Your task to perform on an android device: open device folders in google photos Image 0: 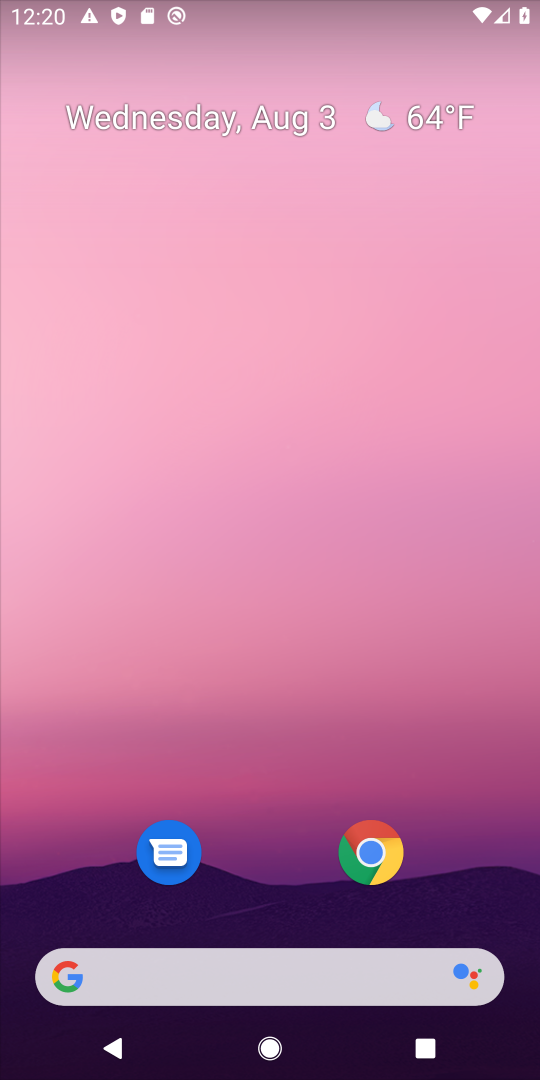
Step 0: drag from (253, 861) to (255, 18)
Your task to perform on an android device: open device folders in google photos Image 1: 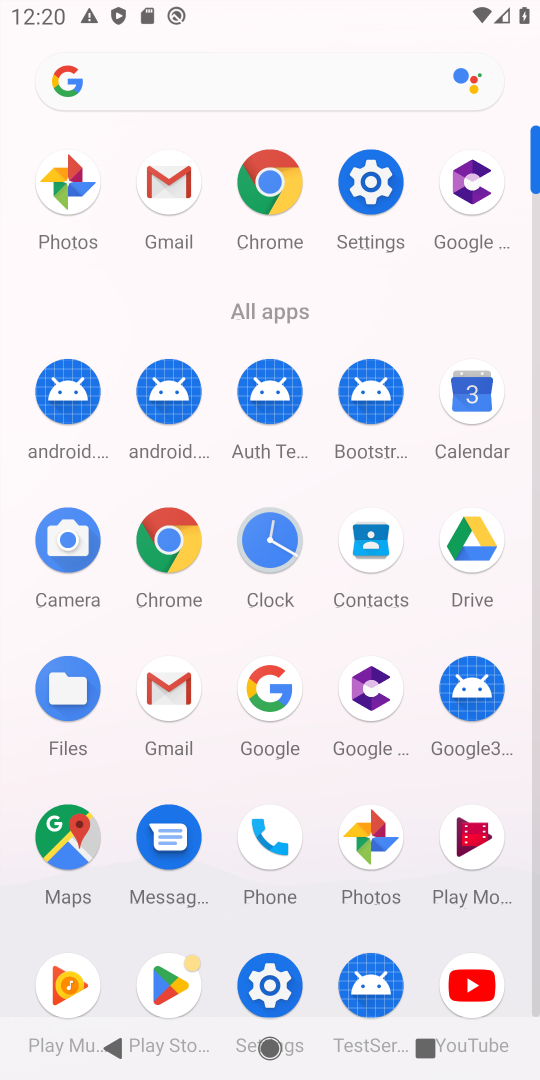
Step 1: click (366, 838)
Your task to perform on an android device: open device folders in google photos Image 2: 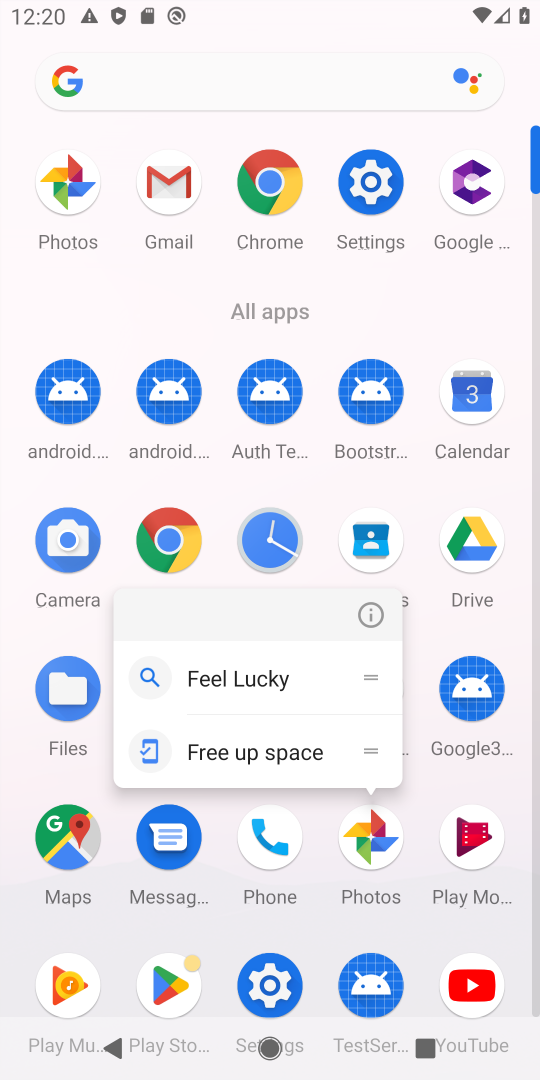
Step 2: click (370, 834)
Your task to perform on an android device: open device folders in google photos Image 3: 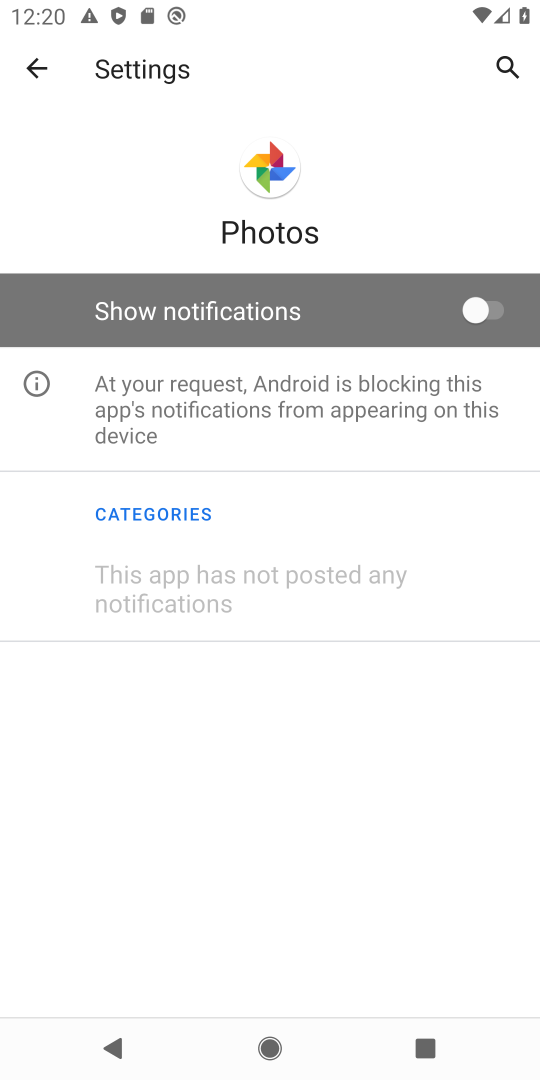
Step 3: click (35, 68)
Your task to perform on an android device: open device folders in google photos Image 4: 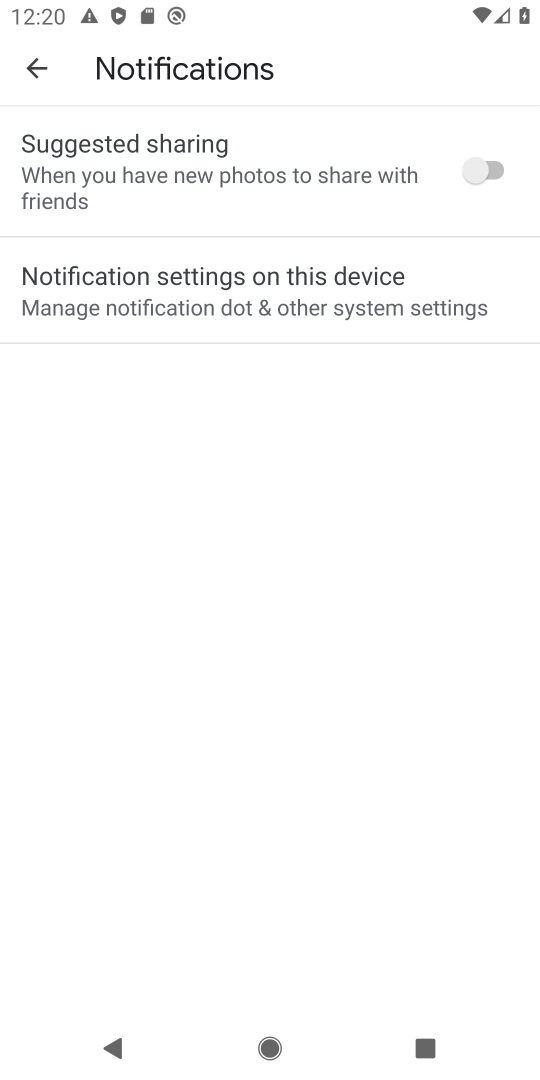
Step 4: click (39, 58)
Your task to perform on an android device: open device folders in google photos Image 5: 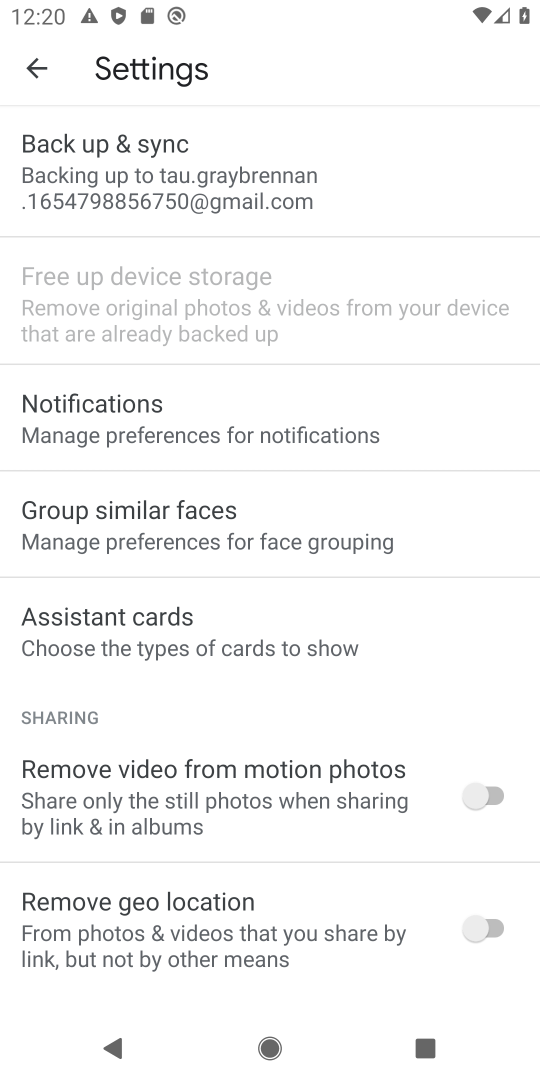
Step 5: click (42, 51)
Your task to perform on an android device: open device folders in google photos Image 6: 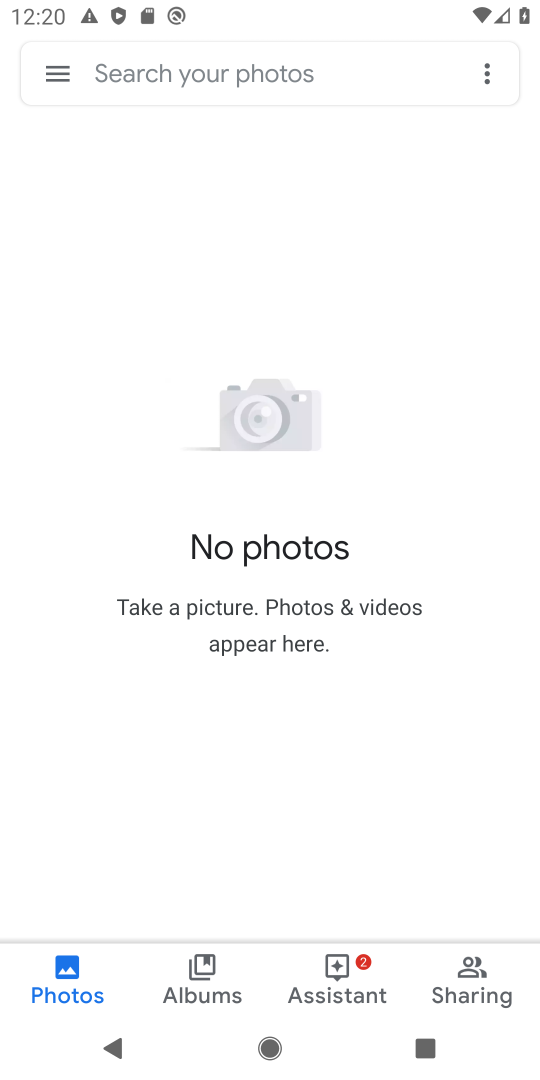
Step 6: click (179, 66)
Your task to perform on an android device: open device folders in google photos Image 7: 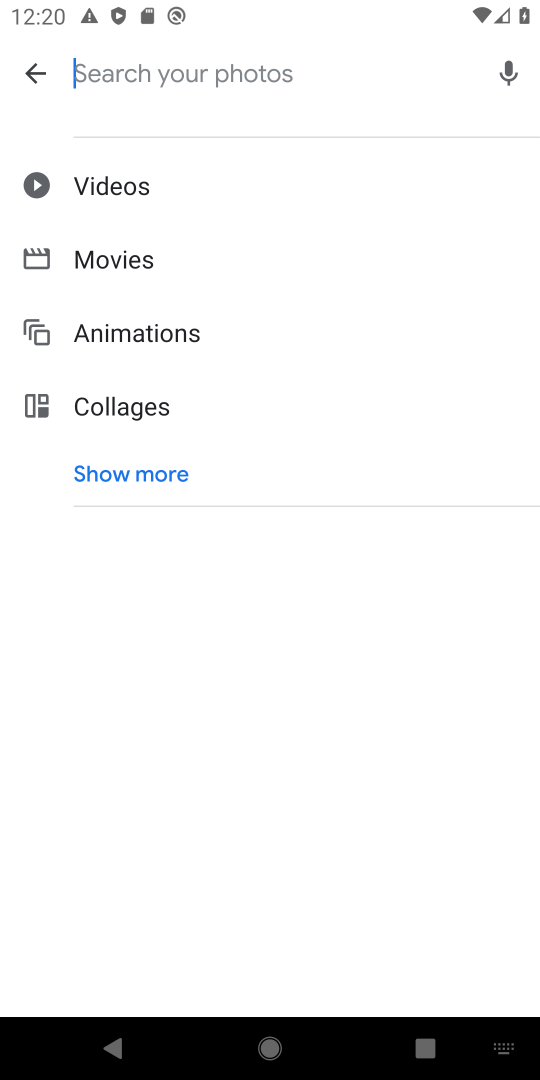
Step 7: click (117, 69)
Your task to perform on an android device: open device folders in google photos Image 8: 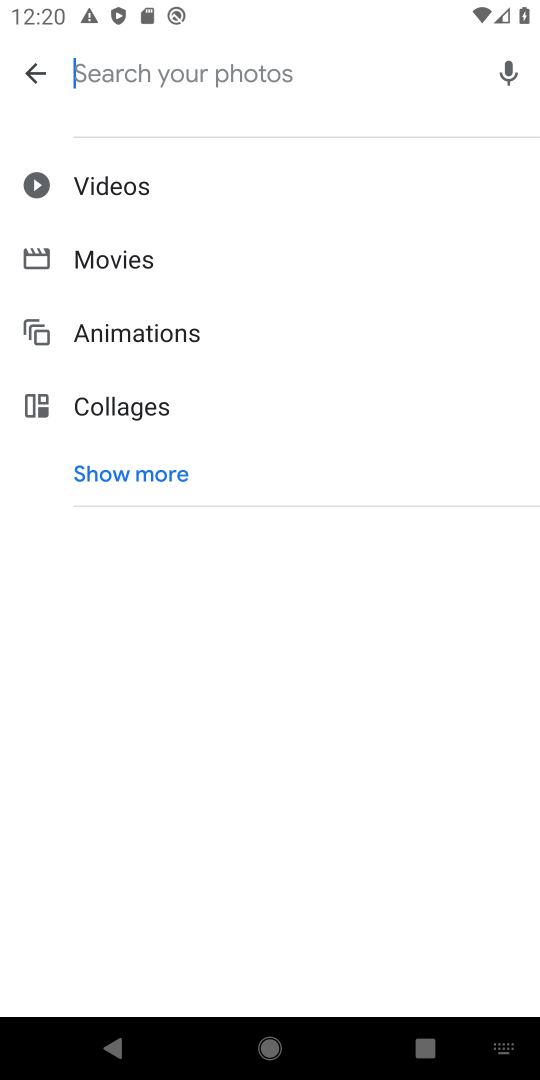
Step 8: type "device"
Your task to perform on an android device: open device folders in google photos Image 9: 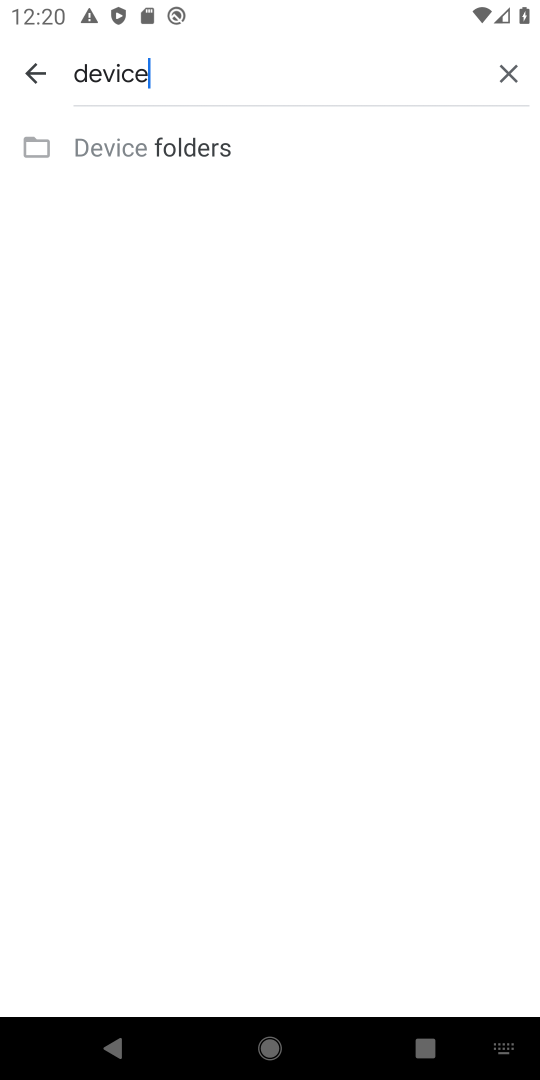
Step 9: click (142, 145)
Your task to perform on an android device: open device folders in google photos Image 10: 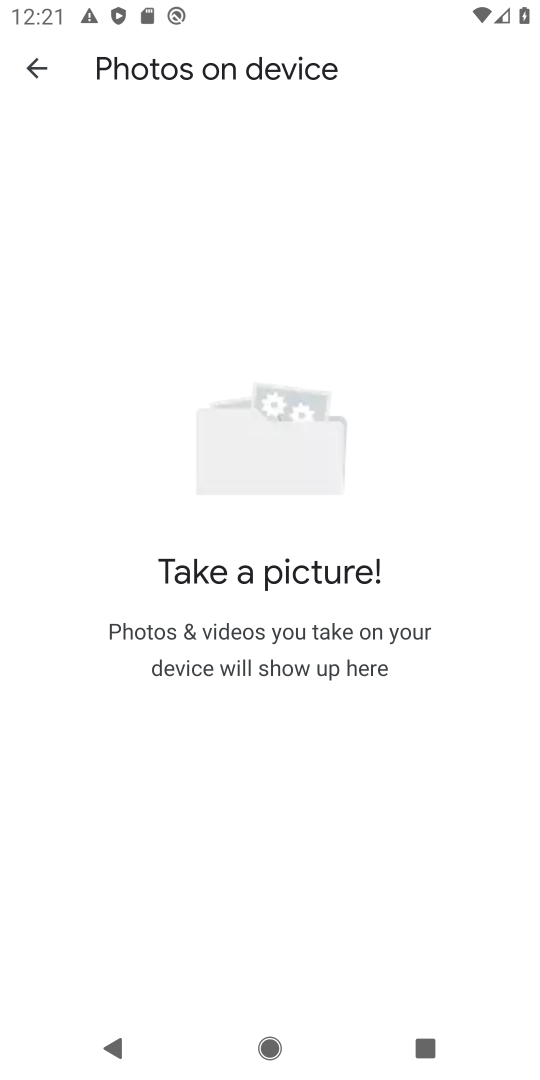
Step 10: task complete